Your task to perform on an android device: snooze an email in the gmail app Image 0: 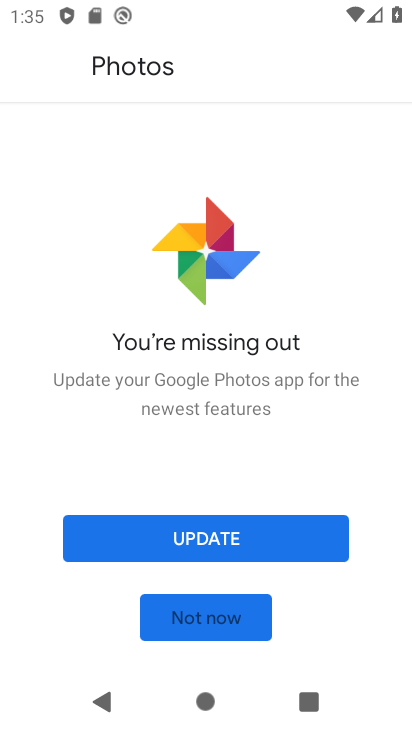
Step 0: press home button
Your task to perform on an android device: snooze an email in the gmail app Image 1: 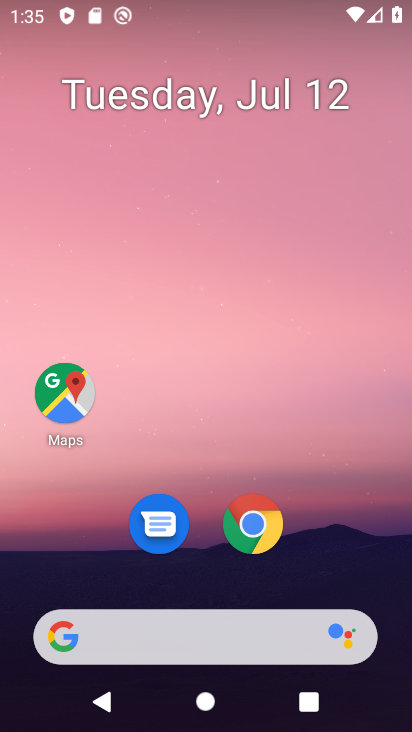
Step 1: drag from (303, 558) to (363, 62)
Your task to perform on an android device: snooze an email in the gmail app Image 2: 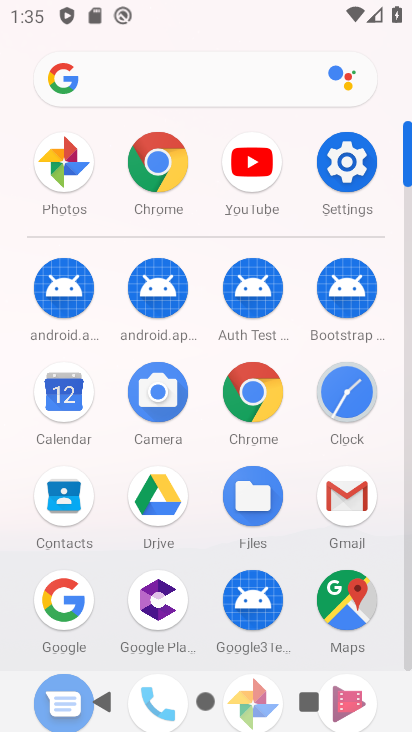
Step 2: click (336, 489)
Your task to perform on an android device: snooze an email in the gmail app Image 3: 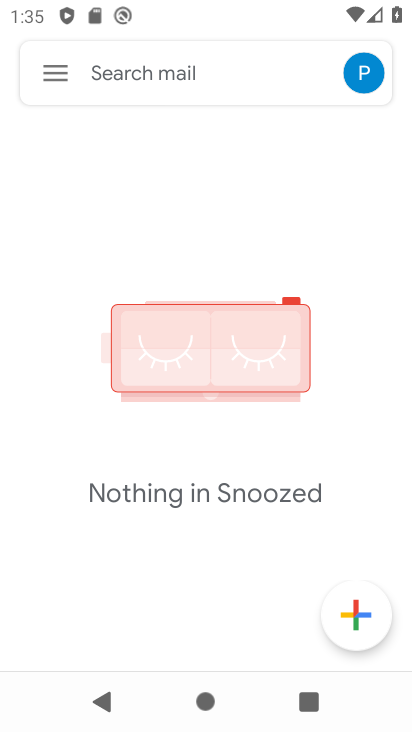
Step 3: click (64, 68)
Your task to perform on an android device: snooze an email in the gmail app Image 4: 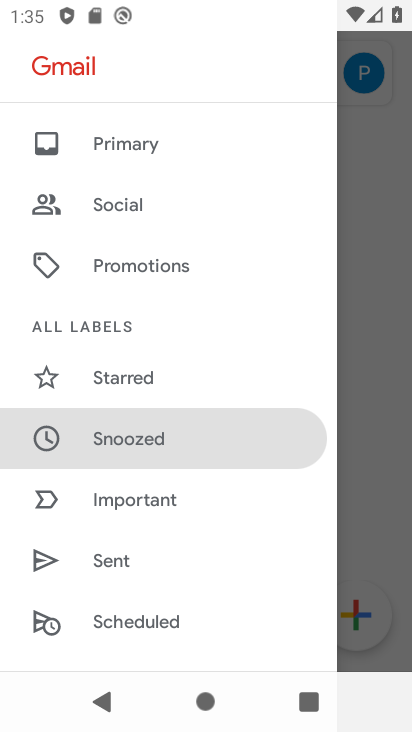
Step 4: drag from (204, 533) to (244, 96)
Your task to perform on an android device: snooze an email in the gmail app Image 5: 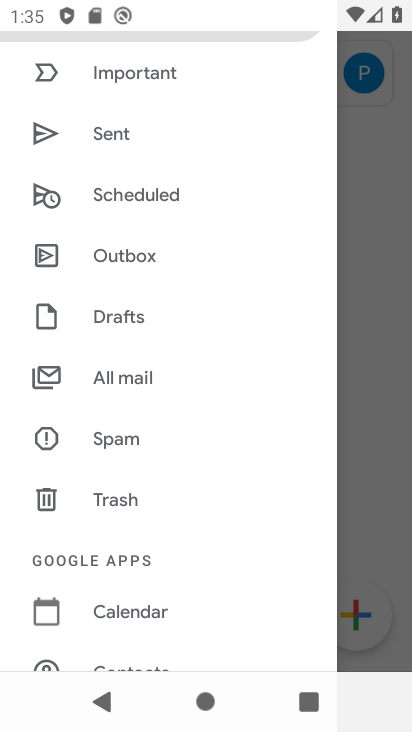
Step 5: click (122, 372)
Your task to perform on an android device: snooze an email in the gmail app Image 6: 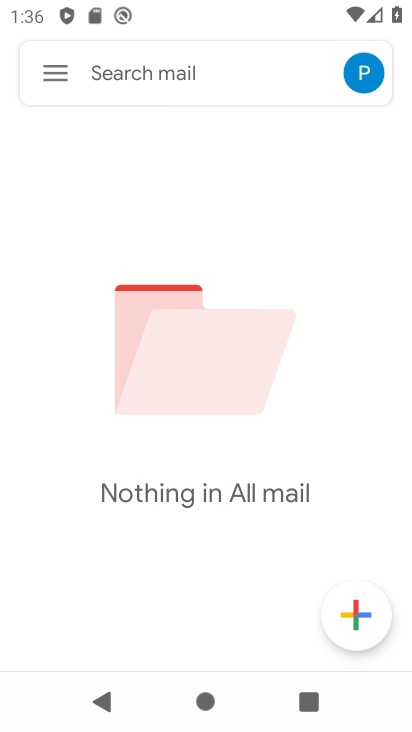
Step 6: task complete